Your task to perform on an android device: Is it going to rain this weekend? Image 0: 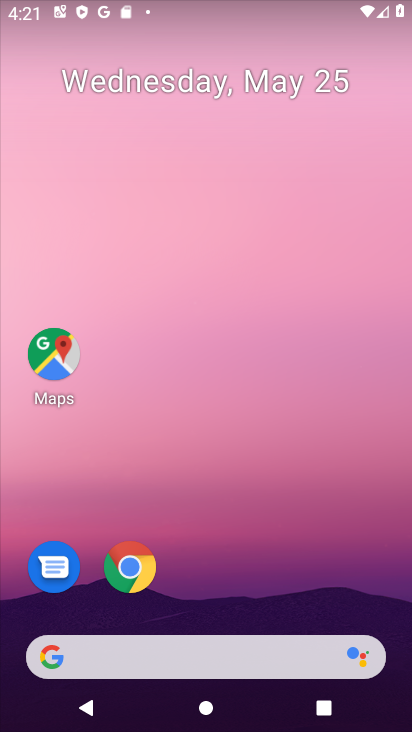
Step 0: drag from (291, 570) to (231, 9)
Your task to perform on an android device: Is it going to rain this weekend? Image 1: 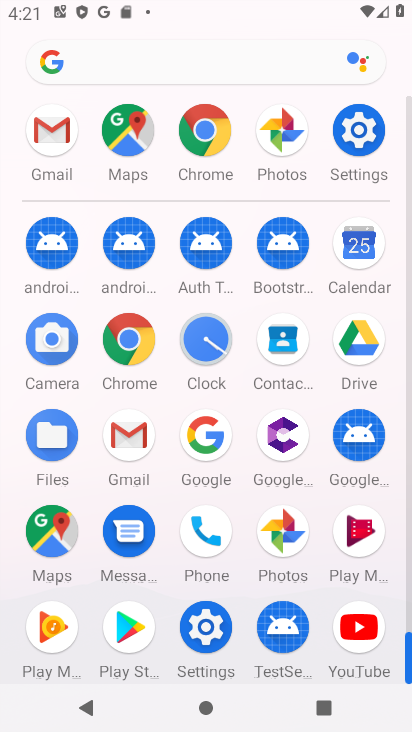
Step 1: drag from (9, 598) to (5, 308)
Your task to perform on an android device: Is it going to rain this weekend? Image 2: 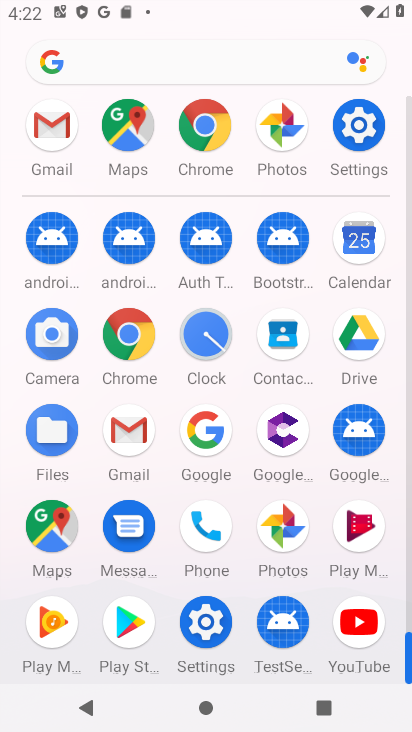
Step 2: click (130, 329)
Your task to perform on an android device: Is it going to rain this weekend? Image 3: 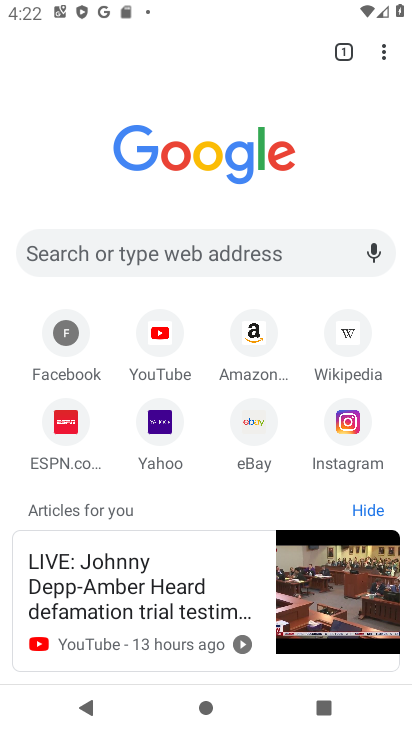
Step 3: click (150, 246)
Your task to perform on an android device: Is it going to rain this weekend? Image 4: 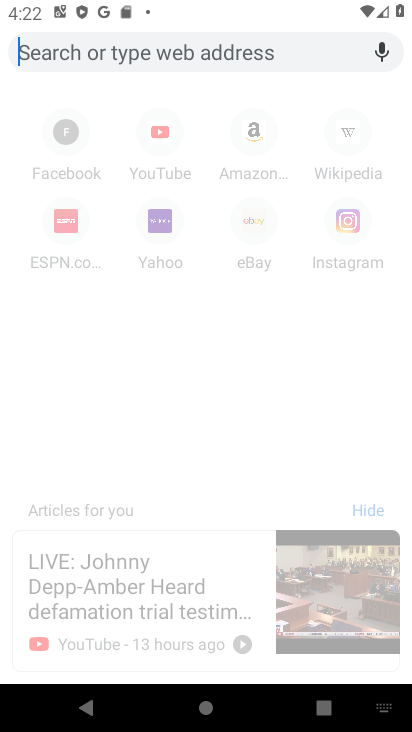
Step 4: type "Is it going to rain this weekend"
Your task to perform on an android device: Is it going to rain this weekend? Image 5: 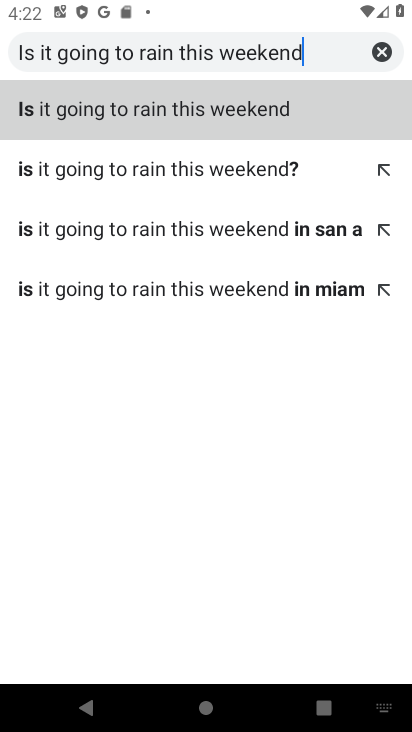
Step 5: type ""
Your task to perform on an android device: Is it going to rain this weekend? Image 6: 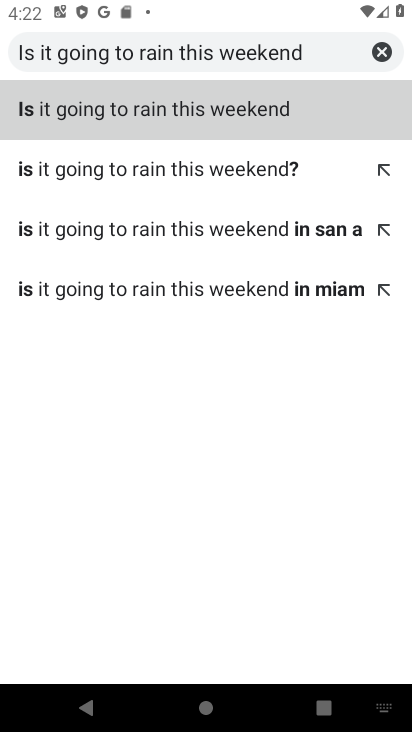
Step 6: click (178, 112)
Your task to perform on an android device: Is it going to rain this weekend? Image 7: 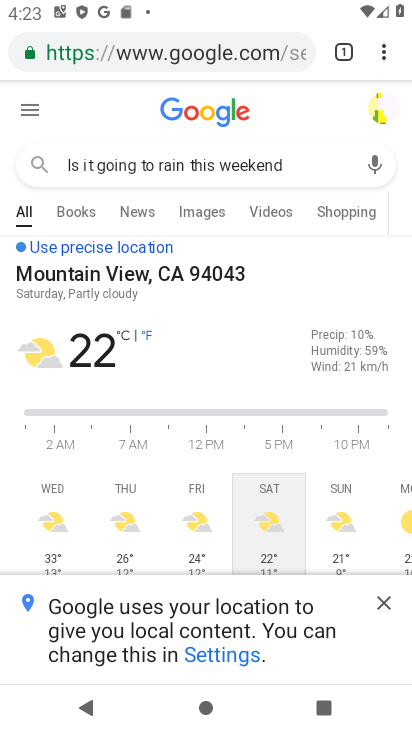
Step 7: task complete